Your task to perform on an android device: Find coffee shops on Maps Image 0: 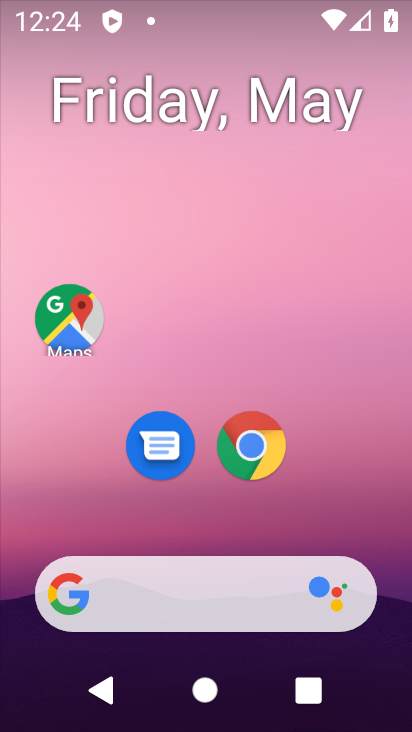
Step 0: click (59, 320)
Your task to perform on an android device: Find coffee shops on Maps Image 1: 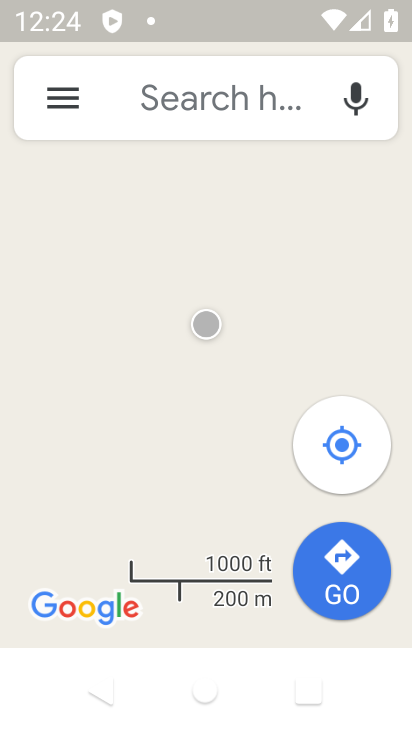
Step 1: click (192, 88)
Your task to perform on an android device: Find coffee shops on Maps Image 2: 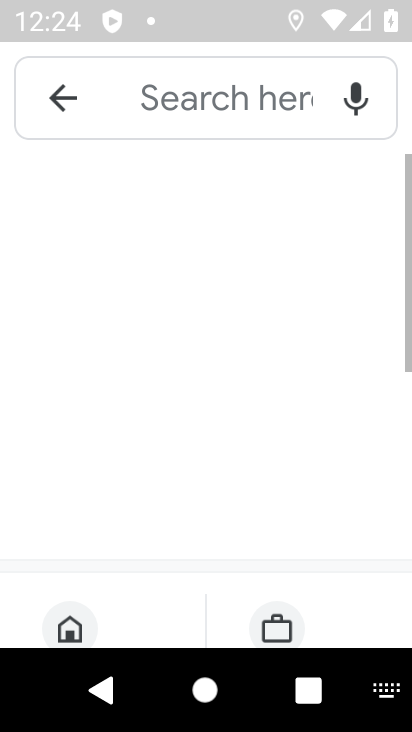
Step 2: type "coffee shops"
Your task to perform on an android device: Find coffee shops on Maps Image 3: 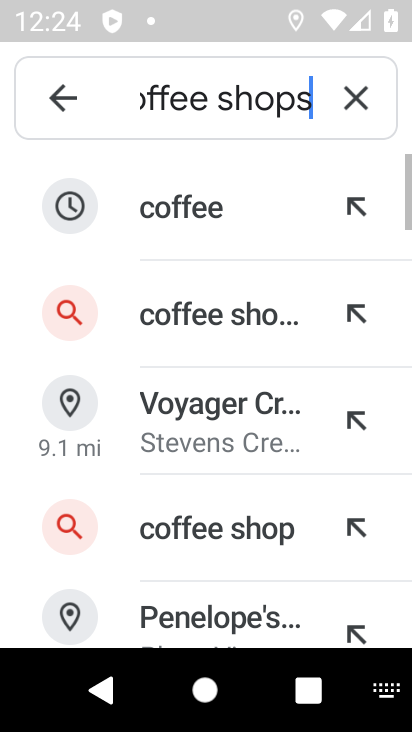
Step 3: click (199, 319)
Your task to perform on an android device: Find coffee shops on Maps Image 4: 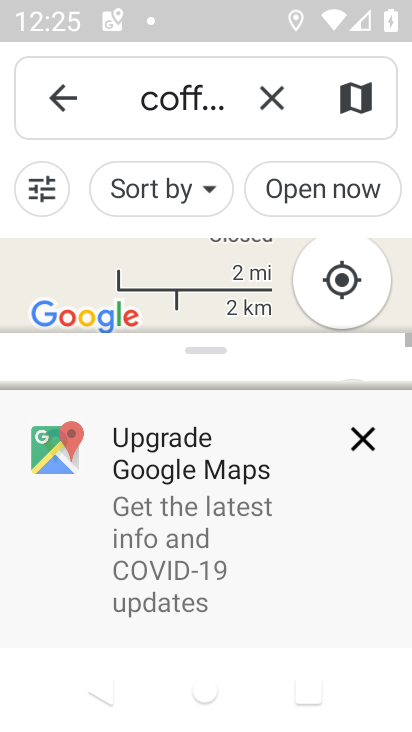
Step 4: task complete